Your task to perform on an android device: find photos in the google photos app Image 0: 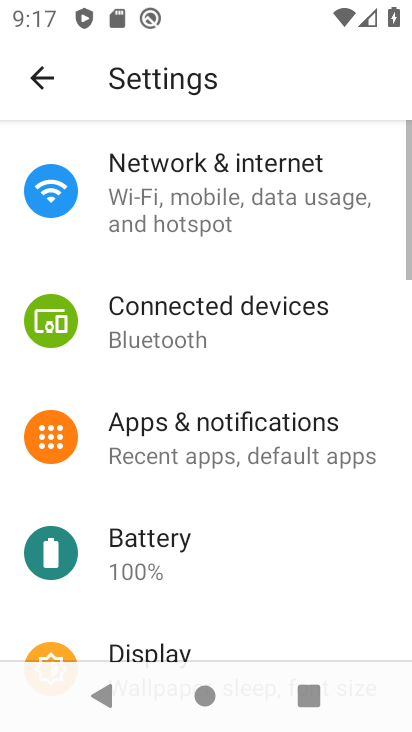
Step 0: press home button
Your task to perform on an android device: find photos in the google photos app Image 1: 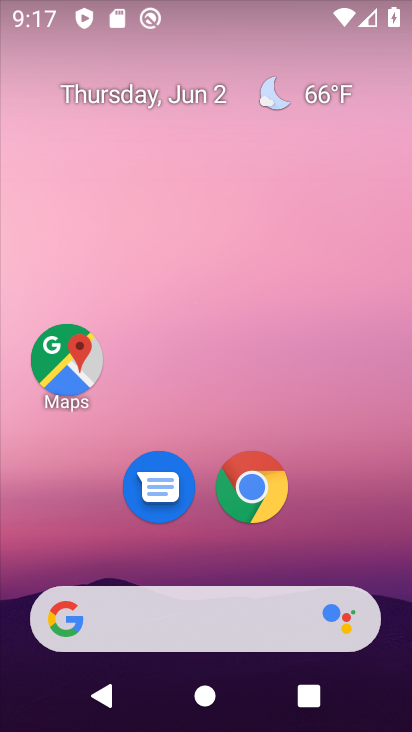
Step 1: drag from (233, 716) to (211, 175)
Your task to perform on an android device: find photos in the google photos app Image 2: 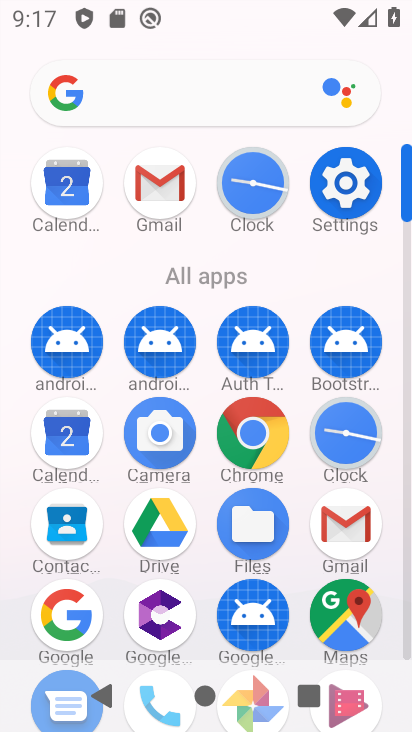
Step 2: drag from (295, 599) to (266, 246)
Your task to perform on an android device: find photos in the google photos app Image 3: 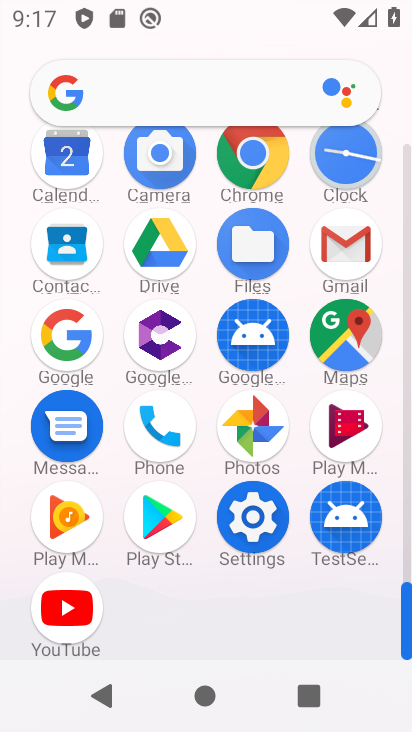
Step 3: click (257, 422)
Your task to perform on an android device: find photos in the google photos app Image 4: 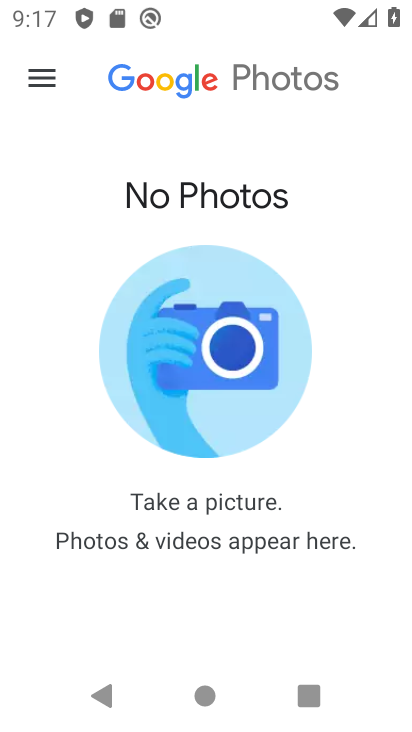
Step 4: click (33, 75)
Your task to perform on an android device: find photos in the google photos app Image 5: 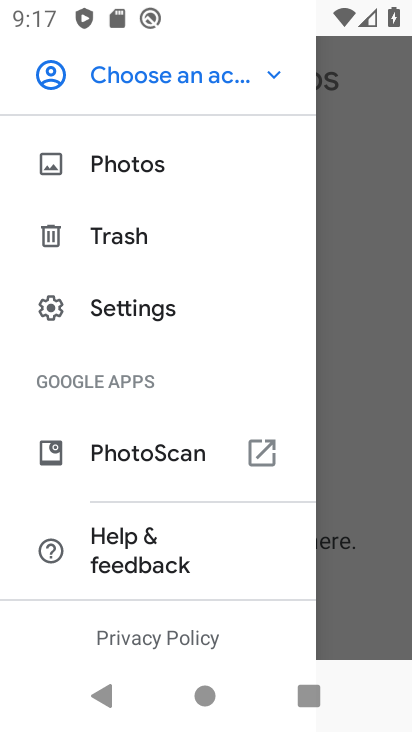
Step 5: click (129, 163)
Your task to perform on an android device: find photos in the google photos app Image 6: 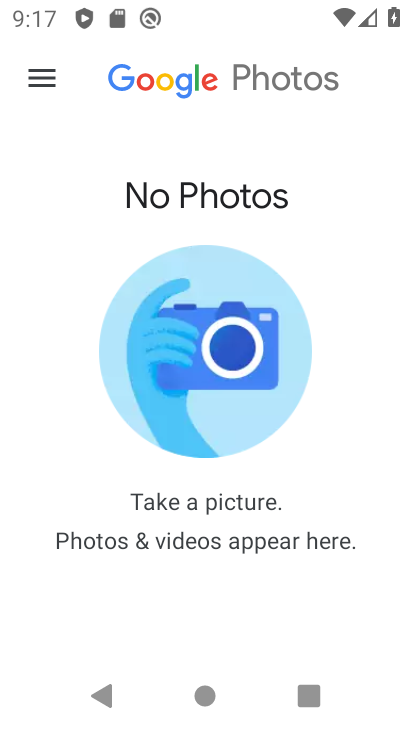
Step 6: task complete